Your task to perform on an android device: open sync settings in chrome Image 0: 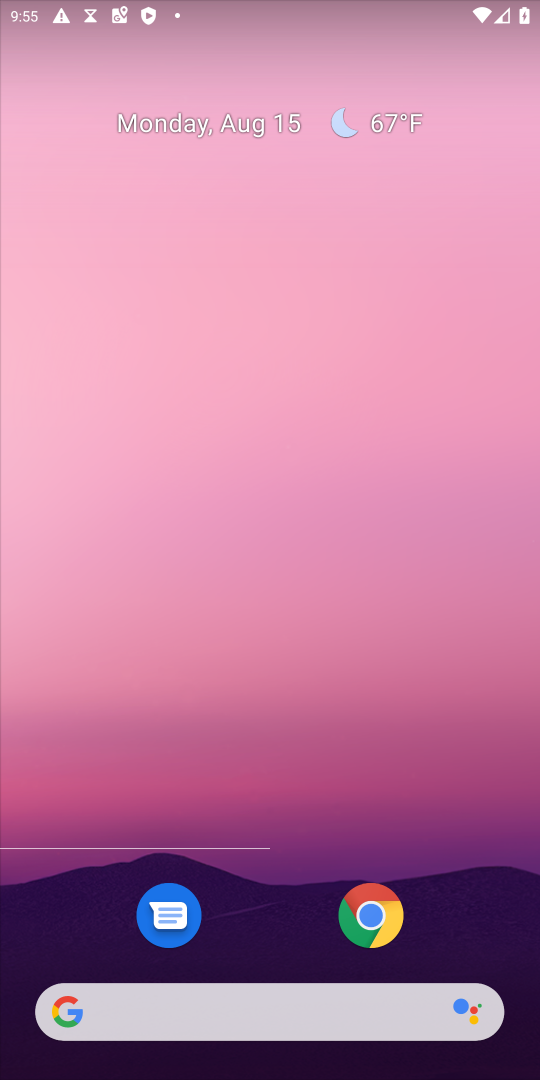
Step 0: press home button
Your task to perform on an android device: open sync settings in chrome Image 1: 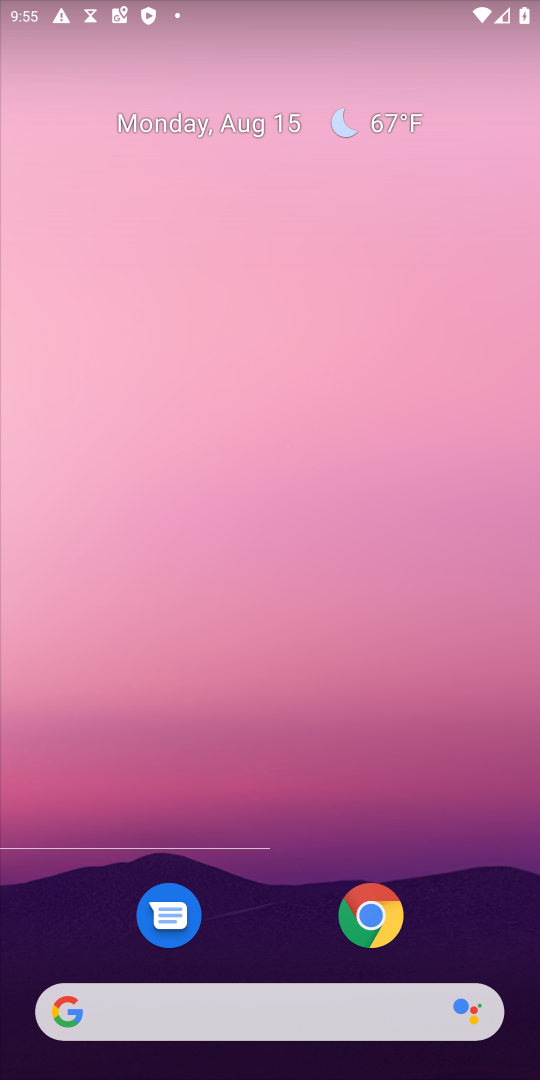
Step 1: click (385, 910)
Your task to perform on an android device: open sync settings in chrome Image 2: 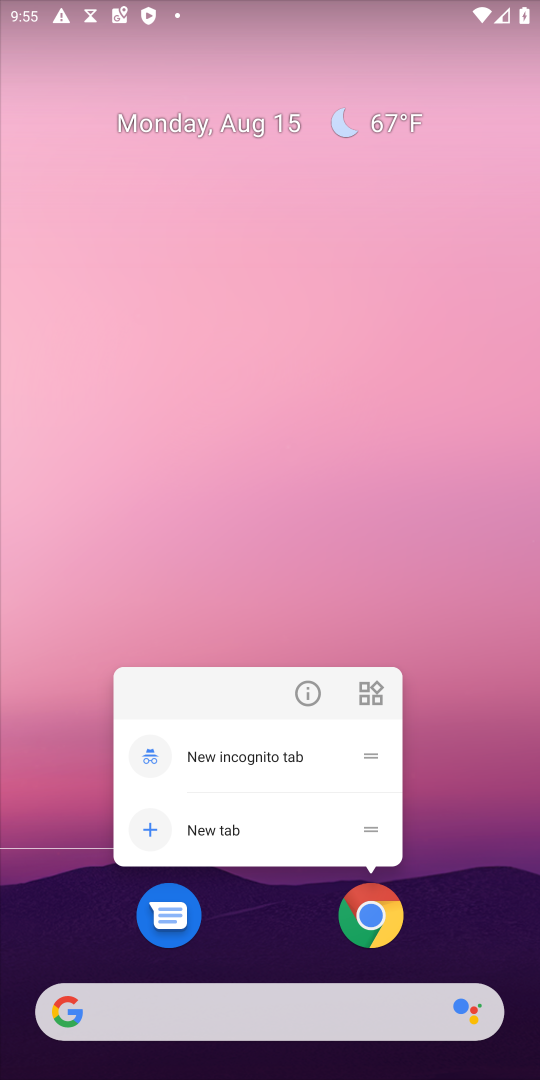
Step 2: click (385, 910)
Your task to perform on an android device: open sync settings in chrome Image 3: 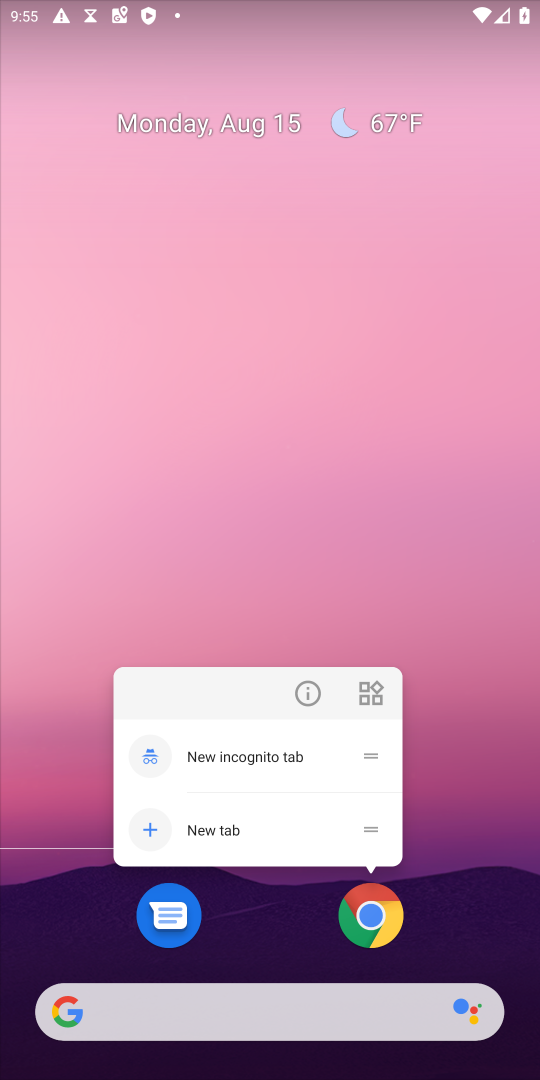
Step 3: click (385, 910)
Your task to perform on an android device: open sync settings in chrome Image 4: 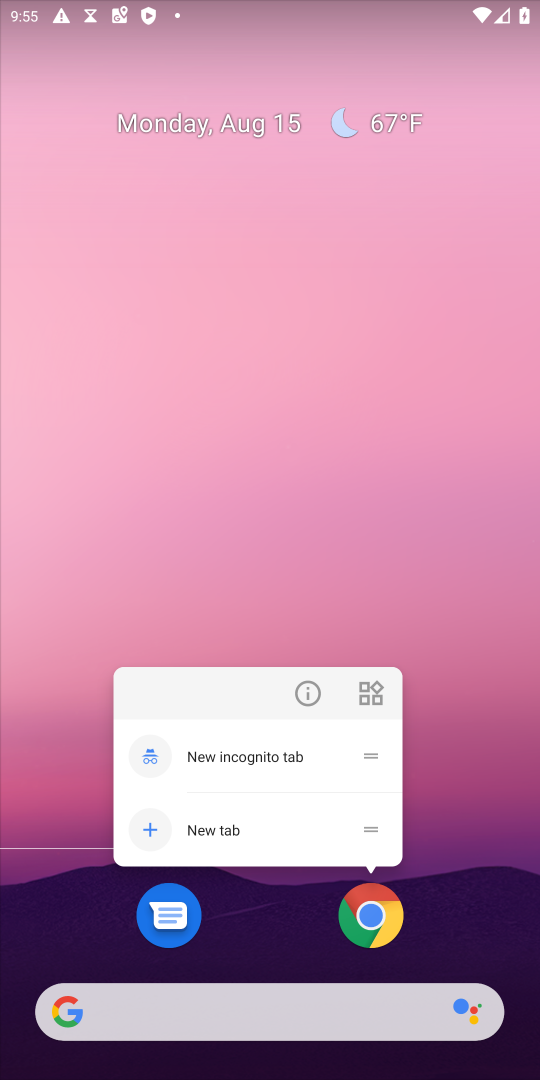
Step 4: click (377, 933)
Your task to perform on an android device: open sync settings in chrome Image 5: 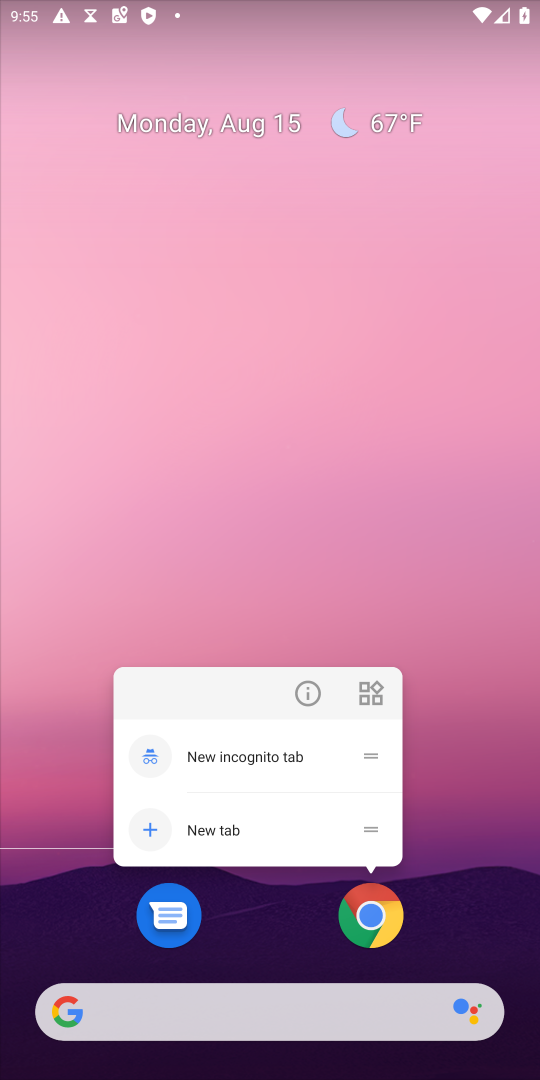
Step 5: click (370, 914)
Your task to perform on an android device: open sync settings in chrome Image 6: 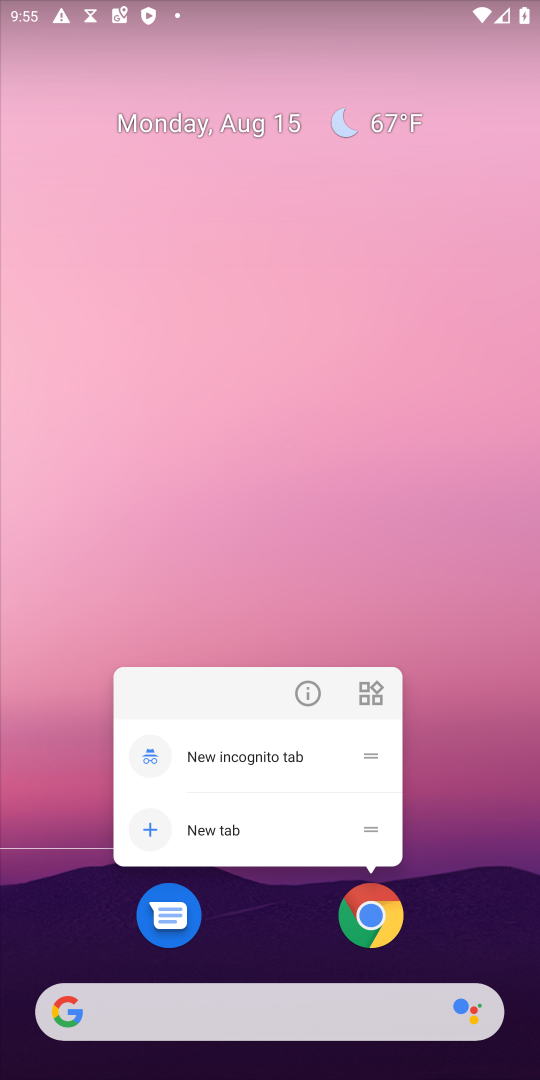
Step 6: click (370, 914)
Your task to perform on an android device: open sync settings in chrome Image 7: 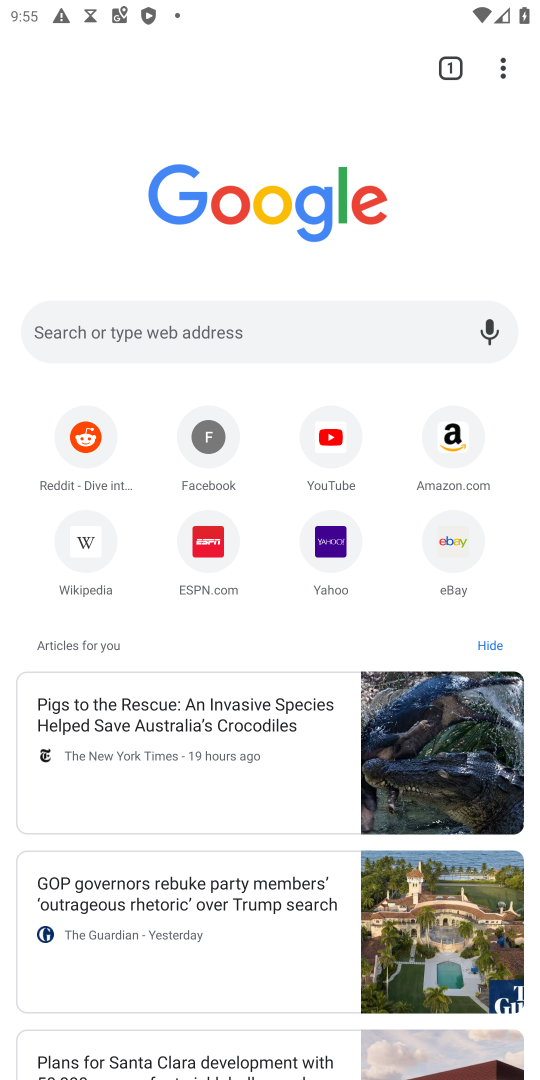
Step 7: click (495, 60)
Your task to perform on an android device: open sync settings in chrome Image 8: 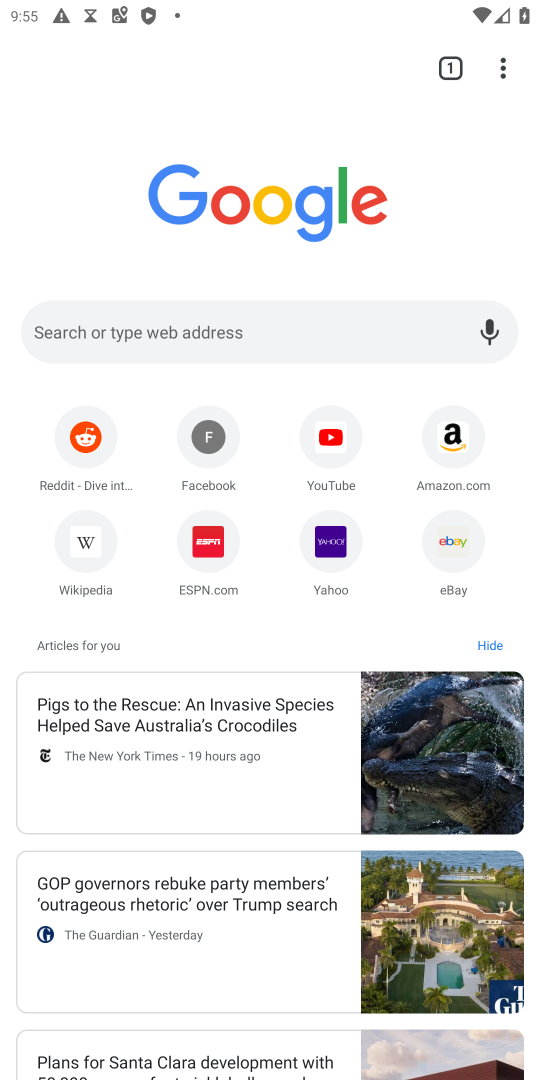
Step 8: click (506, 65)
Your task to perform on an android device: open sync settings in chrome Image 9: 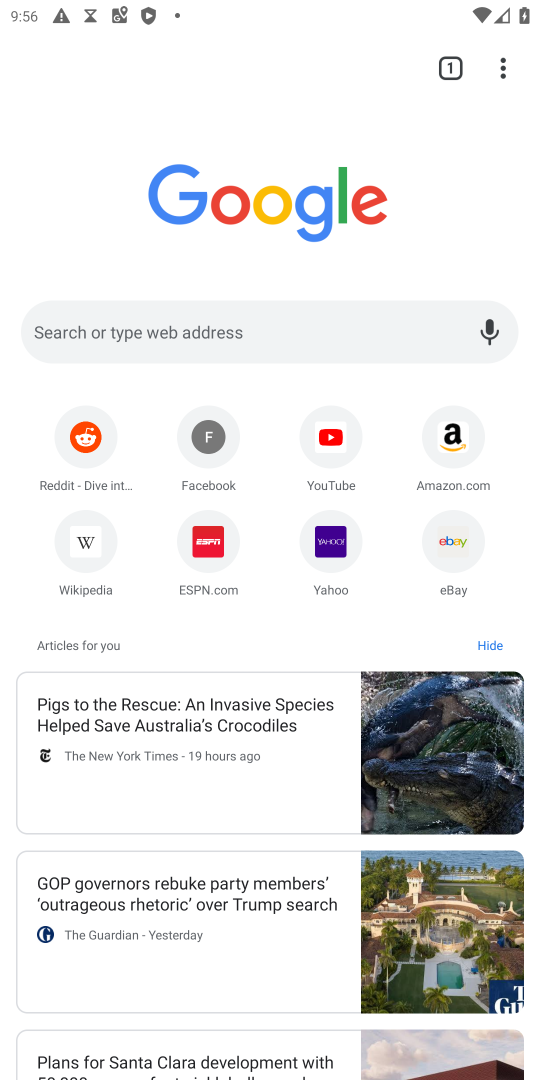
Step 9: click (500, 62)
Your task to perform on an android device: open sync settings in chrome Image 10: 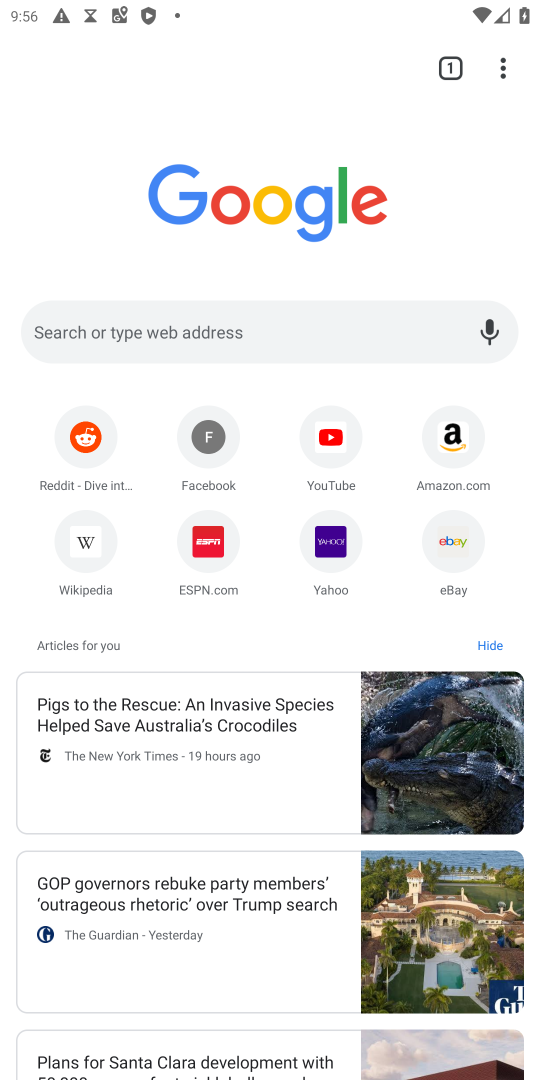
Step 10: drag from (500, 71) to (233, 574)
Your task to perform on an android device: open sync settings in chrome Image 11: 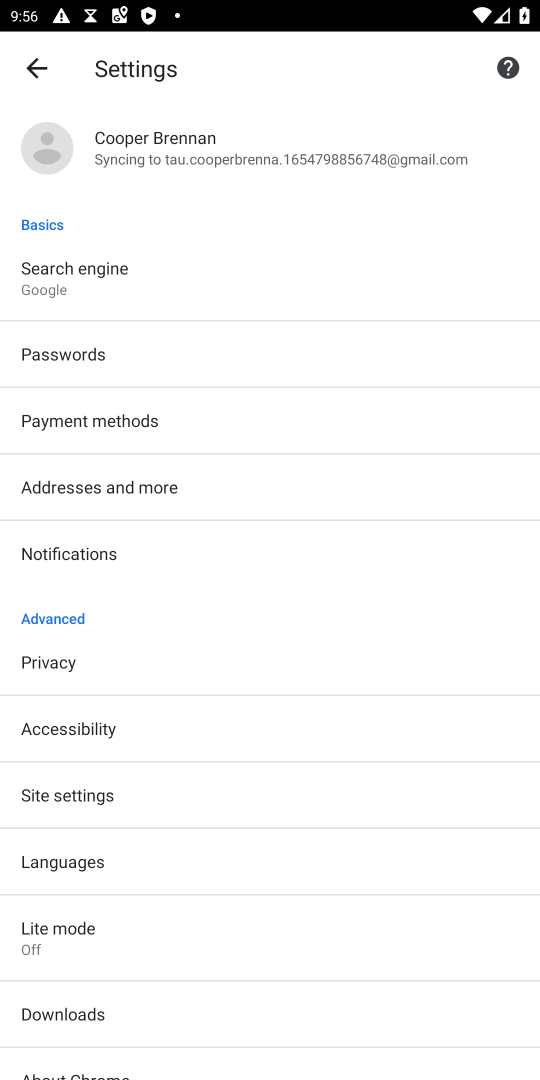
Step 11: click (51, 793)
Your task to perform on an android device: open sync settings in chrome Image 12: 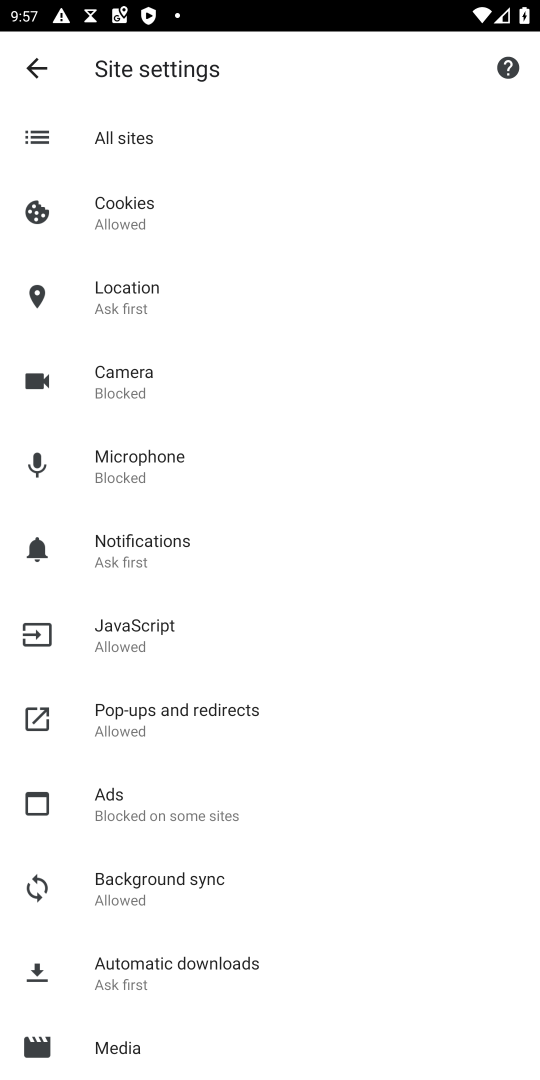
Step 12: drag from (228, 806) to (221, 399)
Your task to perform on an android device: open sync settings in chrome Image 13: 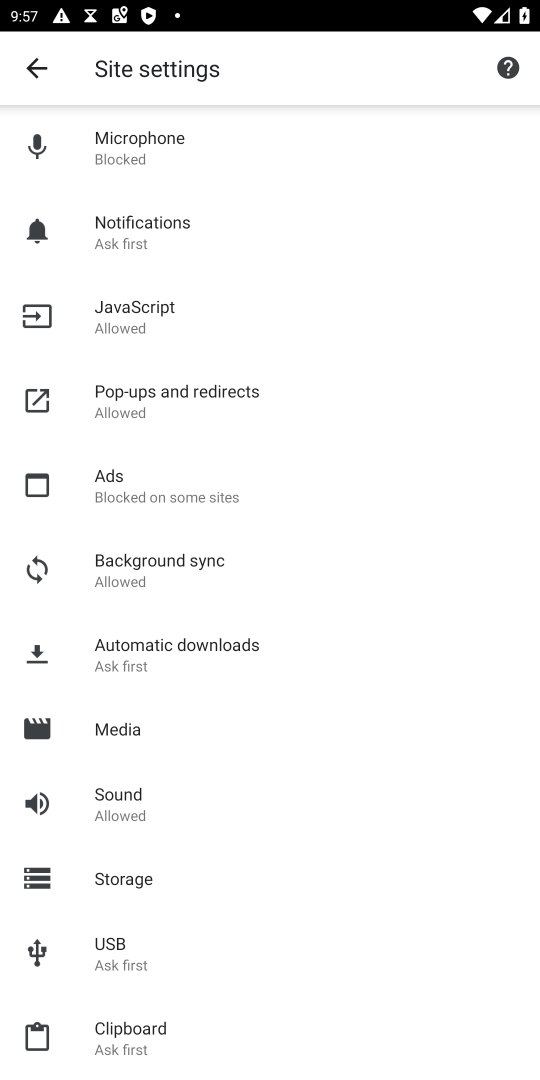
Step 13: click (108, 577)
Your task to perform on an android device: open sync settings in chrome Image 14: 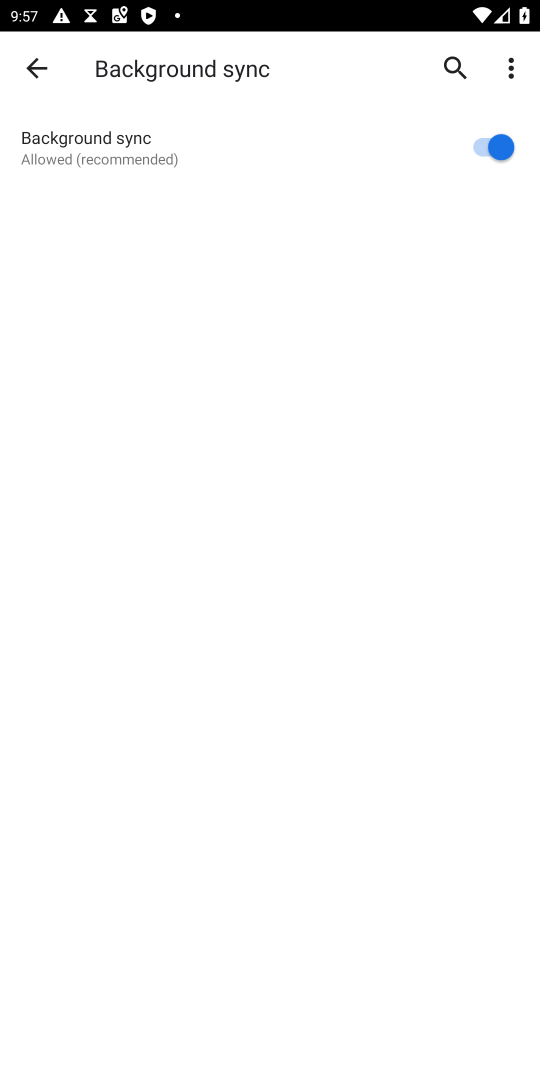
Step 14: task complete